Your task to perform on an android device: turn off notifications settings in the gmail app Image 0: 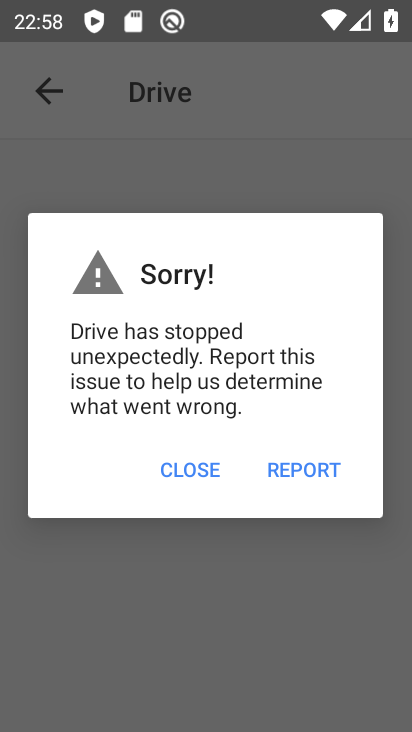
Step 0: press back button
Your task to perform on an android device: turn off notifications settings in the gmail app Image 1: 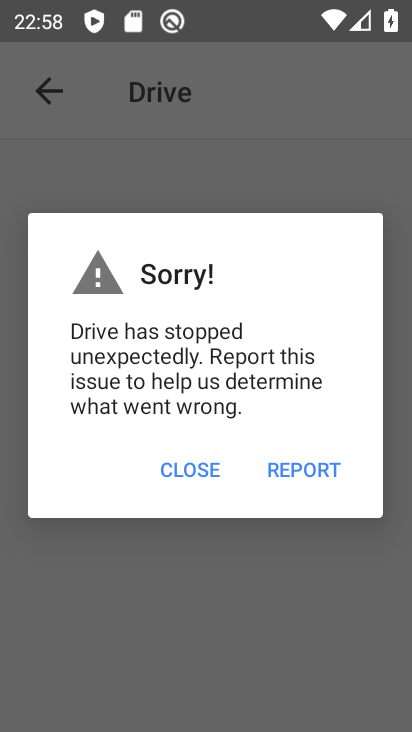
Step 1: press home button
Your task to perform on an android device: turn off notifications settings in the gmail app Image 2: 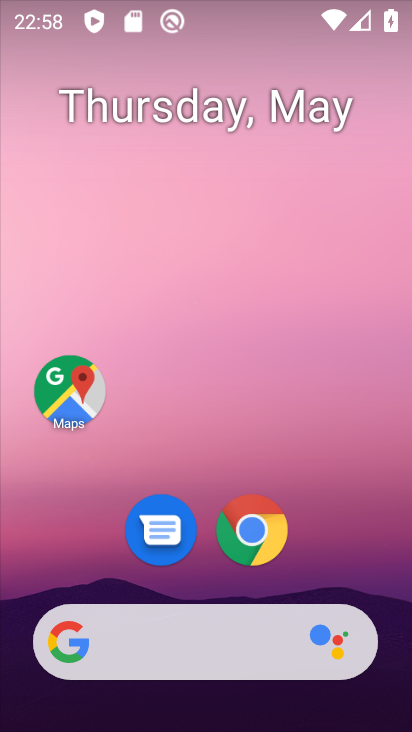
Step 2: drag from (324, 543) to (306, 10)
Your task to perform on an android device: turn off notifications settings in the gmail app Image 3: 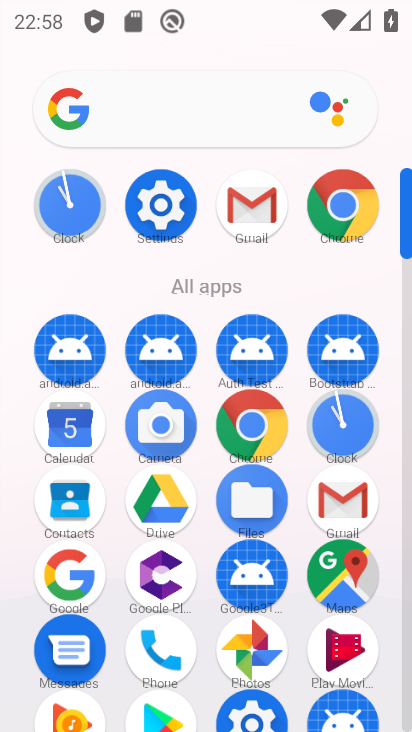
Step 3: click (249, 208)
Your task to perform on an android device: turn off notifications settings in the gmail app Image 4: 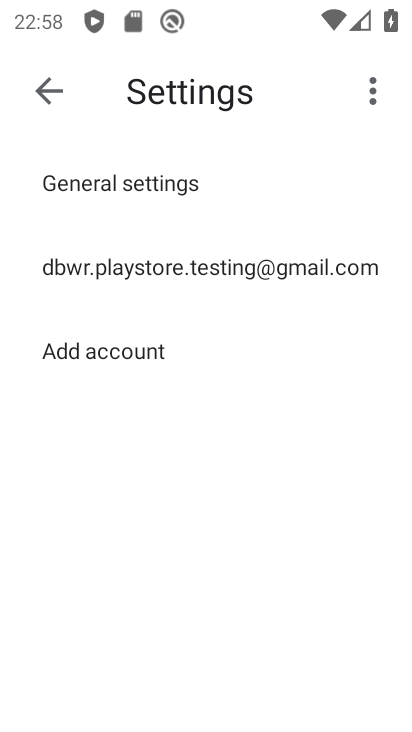
Step 4: click (210, 269)
Your task to perform on an android device: turn off notifications settings in the gmail app Image 5: 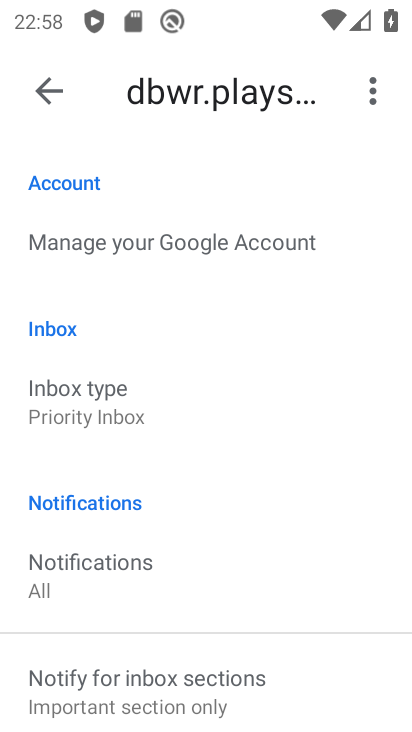
Step 5: drag from (183, 501) to (195, 400)
Your task to perform on an android device: turn off notifications settings in the gmail app Image 6: 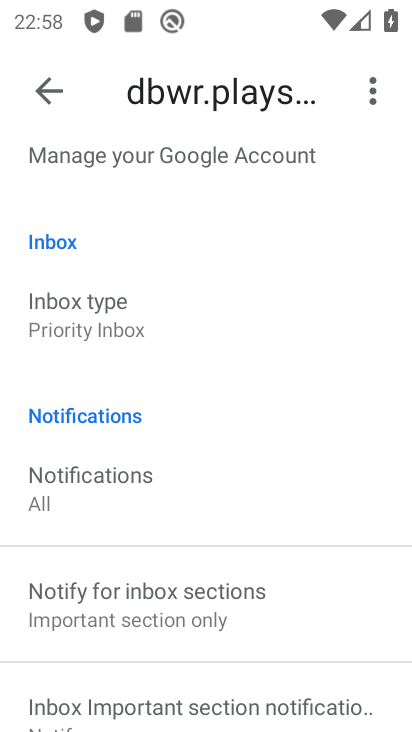
Step 6: drag from (172, 352) to (211, 515)
Your task to perform on an android device: turn off notifications settings in the gmail app Image 7: 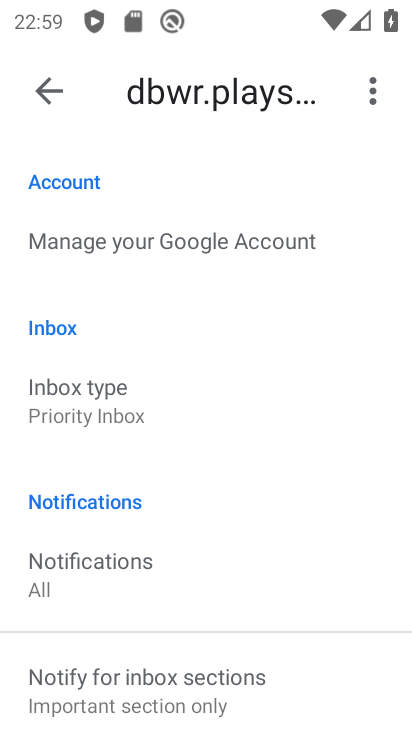
Step 7: drag from (210, 544) to (236, 355)
Your task to perform on an android device: turn off notifications settings in the gmail app Image 8: 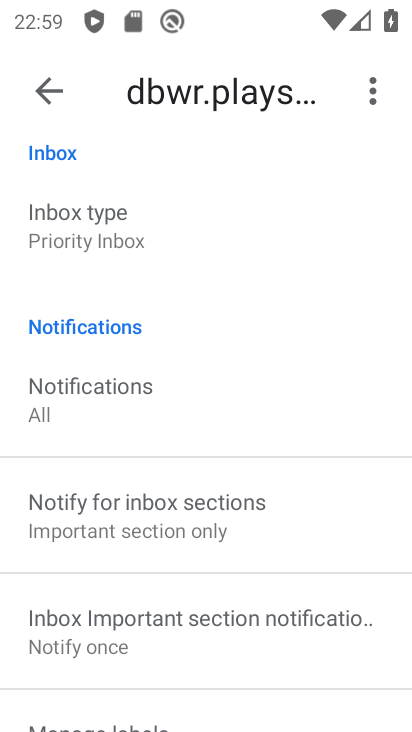
Step 8: drag from (229, 536) to (287, 392)
Your task to perform on an android device: turn off notifications settings in the gmail app Image 9: 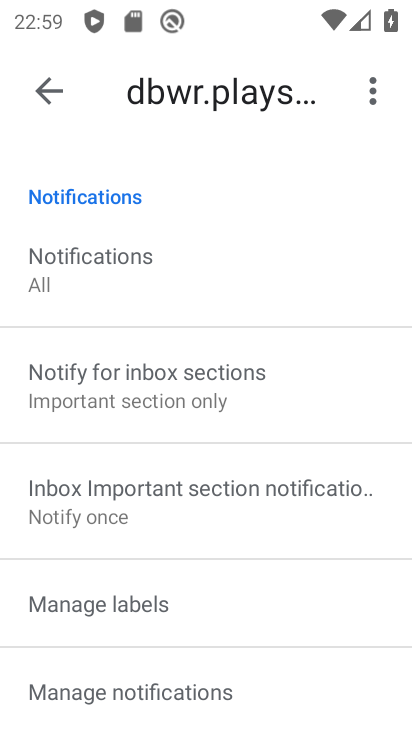
Step 9: drag from (218, 546) to (278, 410)
Your task to perform on an android device: turn off notifications settings in the gmail app Image 10: 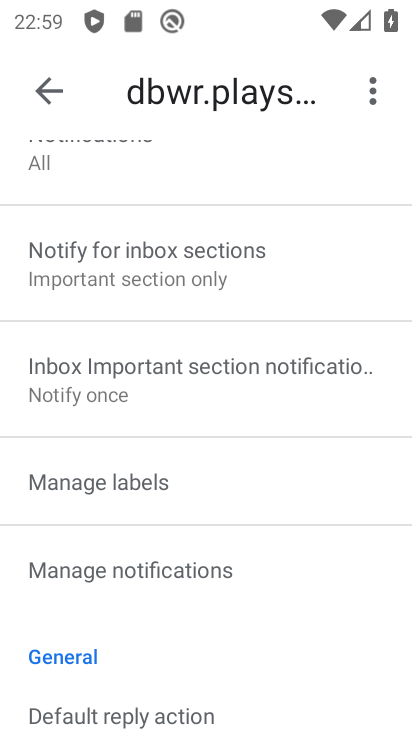
Step 10: click (181, 571)
Your task to perform on an android device: turn off notifications settings in the gmail app Image 11: 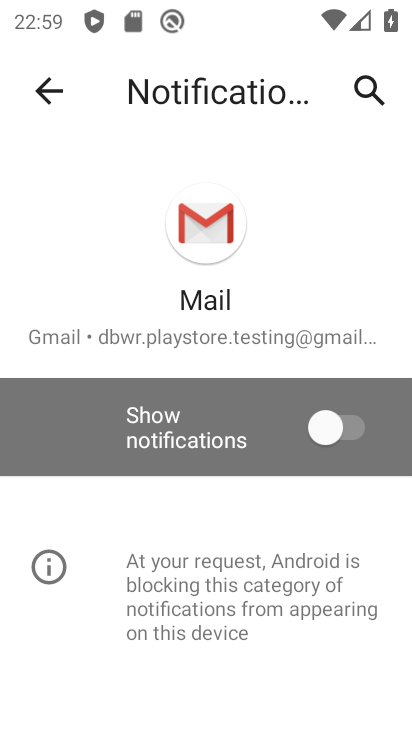
Step 11: task complete